Your task to perform on an android device: turn off improve location accuracy Image 0: 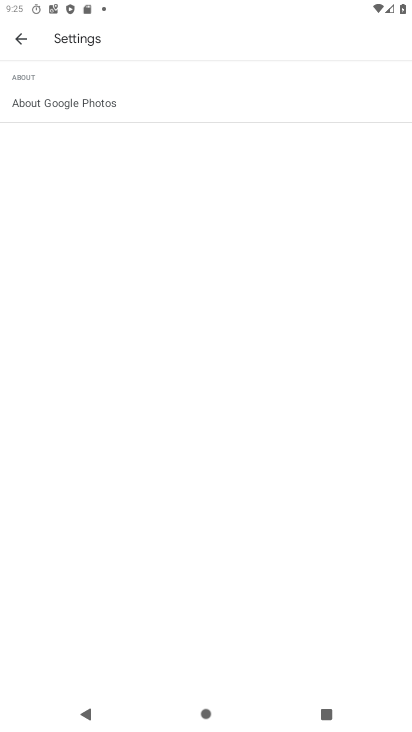
Step 0: press home button
Your task to perform on an android device: turn off improve location accuracy Image 1: 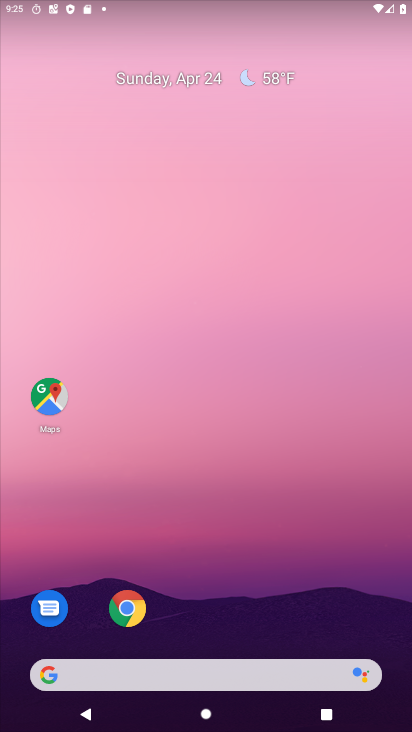
Step 1: drag from (371, 609) to (361, 107)
Your task to perform on an android device: turn off improve location accuracy Image 2: 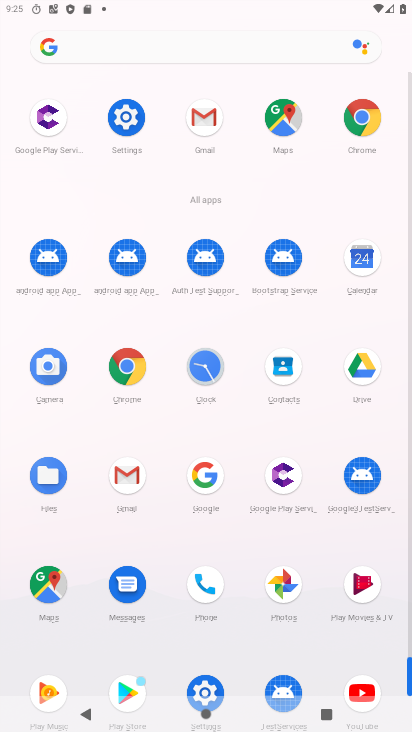
Step 2: click (120, 125)
Your task to perform on an android device: turn off improve location accuracy Image 3: 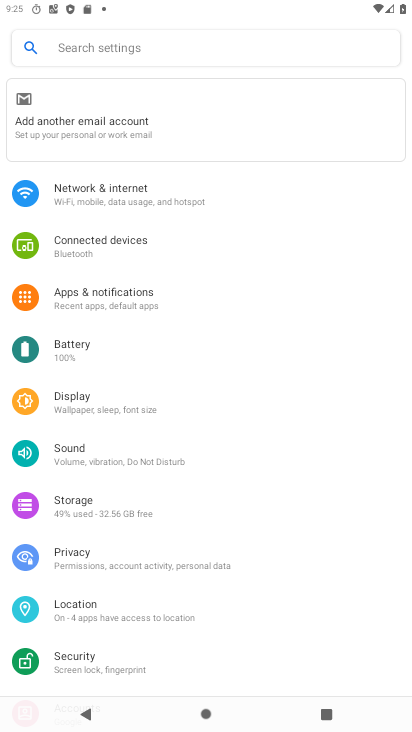
Step 3: drag from (314, 603) to (309, 456)
Your task to perform on an android device: turn off improve location accuracy Image 4: 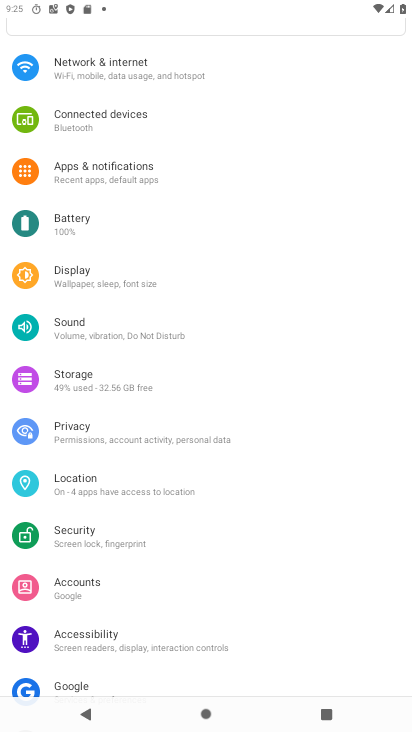
Step 4: drag from (292, 607) to (281, 483)
Your task to perform on an android device: turn off improve location accuracy Image 5: 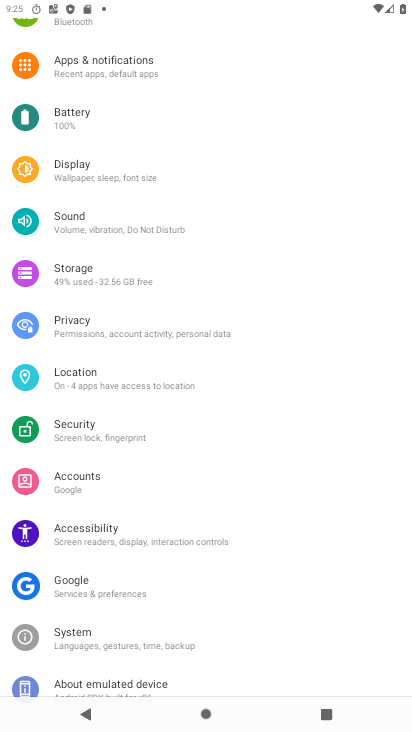
Step 5: drag from (285, 622) to (293, 445)
Your task to perform on an android device: turn off improve location accuracy Image 6: 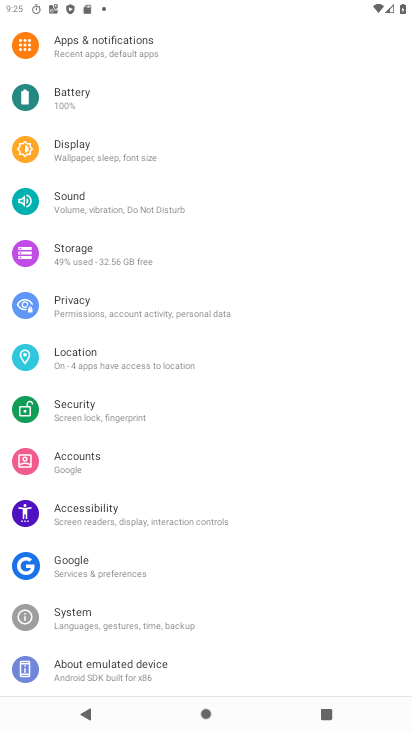
Step 6: drag from (306, 611) to (301, 435)
Your task to perform on an android device: turn off improve location accuracy Image 7: 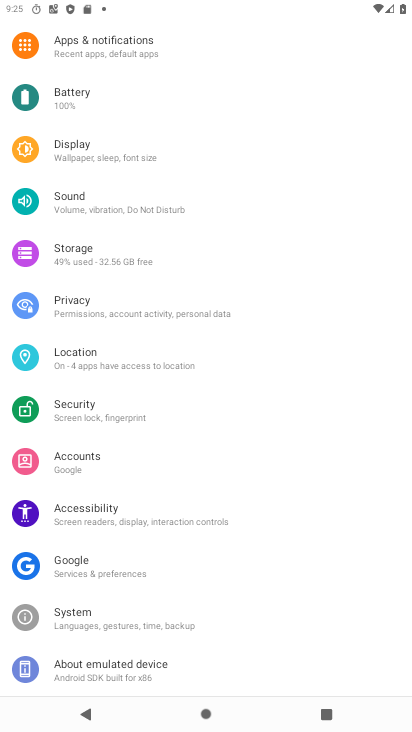
Step 7: drag from (318, 317) to (304, 472)
Your task to perform on an android device: turn off improve location accuracy Image 8: 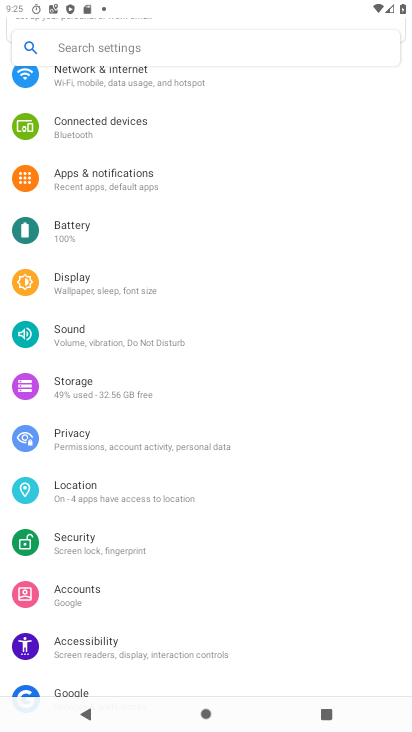
Step 8: drag from (289, 330) to (288, 471)
Your task to perform on an android device: turn off improve location accuracy Image 9: 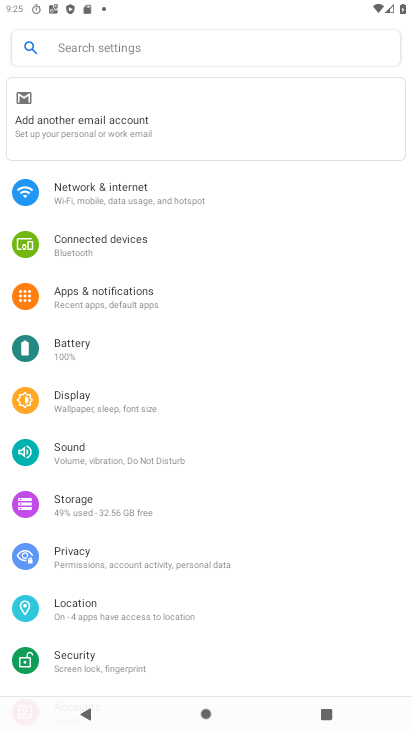
Step 9: click (154, 612)
Your task to perform on an android device: turn off improve location accuracy Image 10: 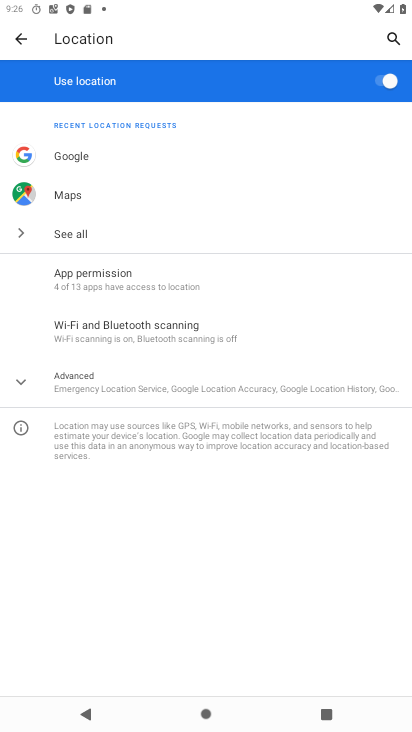
Step 10: click (262, 383)
Your task to perform on an android device: turn off improve location accuracy Image 11: 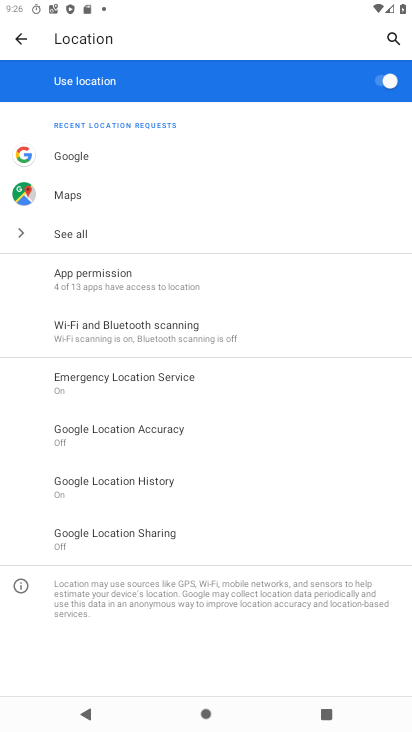
Step 11: drag from (270, 547) to (267, 422)
Your task to perform on an android device: turn off improve location accuracy Image 12: 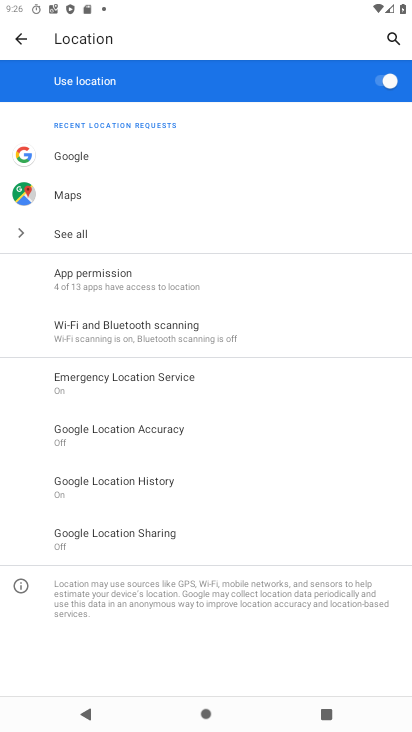
Step 12: click (156, 433)
Your task to perform on an android device: turn off improve location accuracy Image 13: 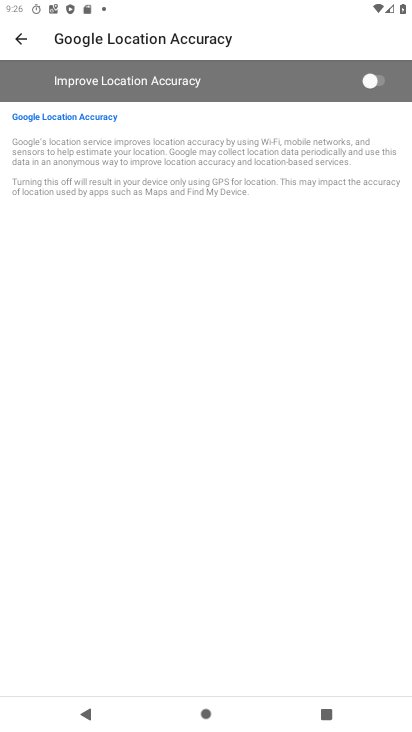
Step 13: task complete